Your task to perform on an android device: Toggle the flashlight Image 0: 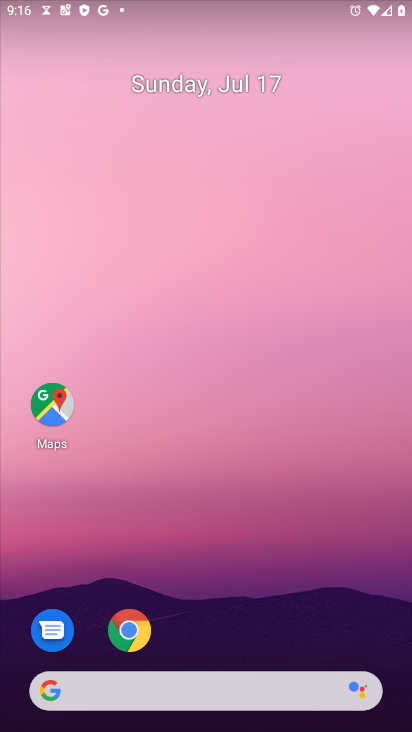
Step 0: drag from (185, 650) to (192, 107)
Your task to perform on an android device: Toggle the flashlight Image 1: 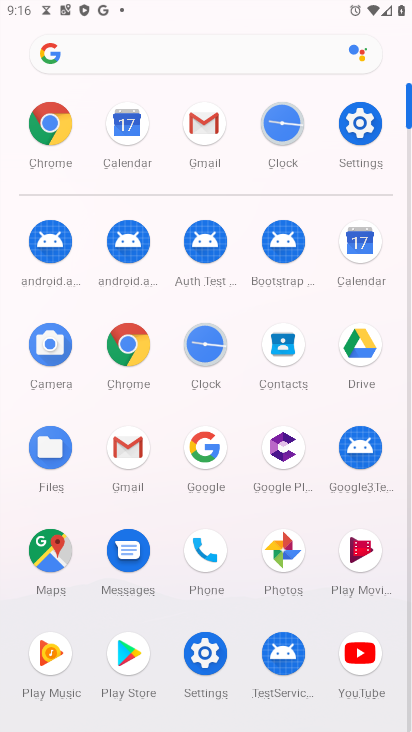
Step 1: click (369, 123)
Your task to perform on an android device: Toggle the flashlight Image 2: 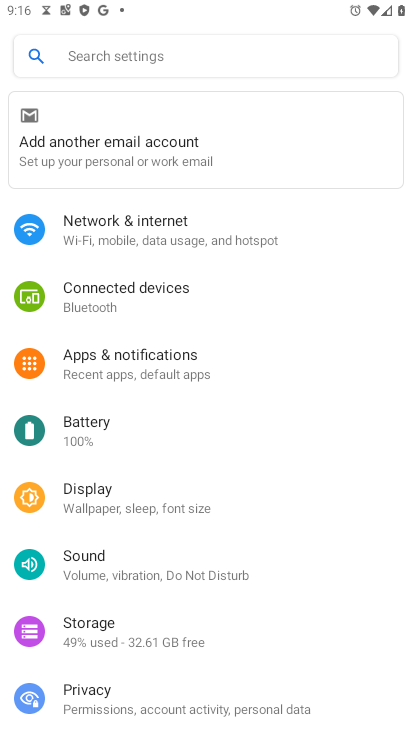
Step 2: task complete